Your task to perform on an android device: Turn on the flashlight Image 0: 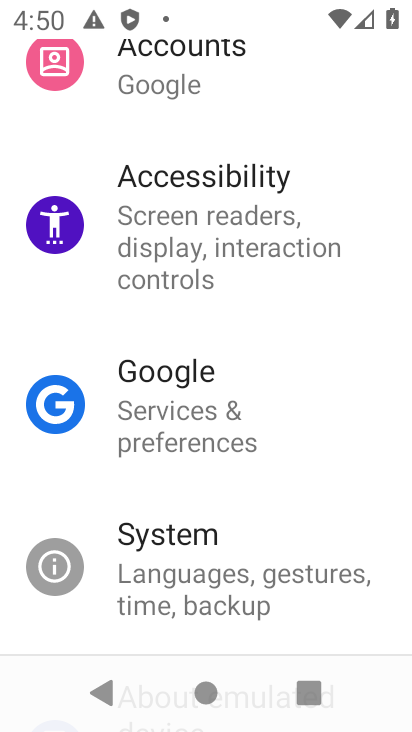
Step 0: drag from (189, 528) to (227, 95)
Your task to perform on an android device: Turn on the flashlight Image 1: 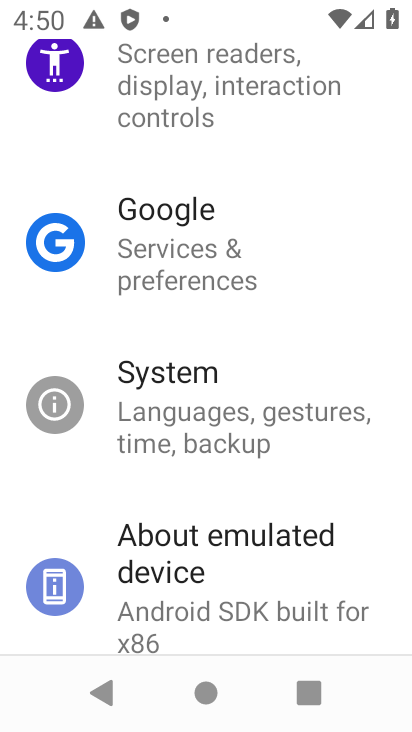
Step 1: task complete